Your task to perform on an android device: Open the phone app and click the voicemail tab. Image 0: 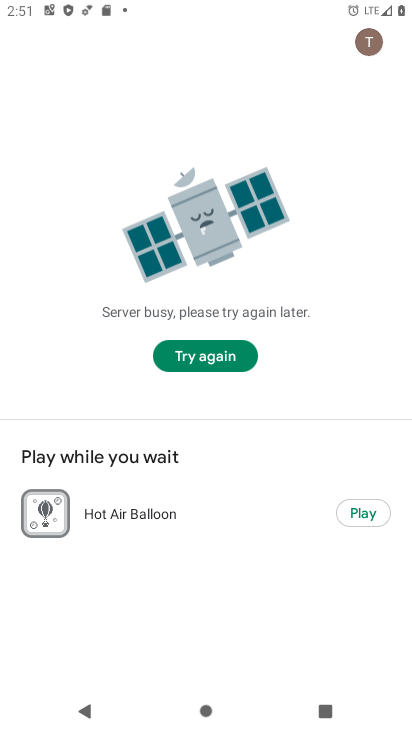
Step 0: press back button
Your task to perform on an android device: Open the phone app and click the voicemail tab. Image 1: 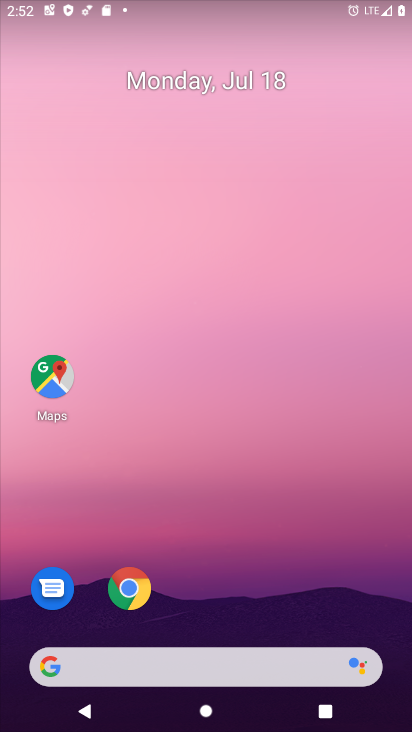
Step 1: drag from (232, 581) to (332, 44)
Your task to perform on an android device: Open the phone app and click the voicemail tab. Image 2: 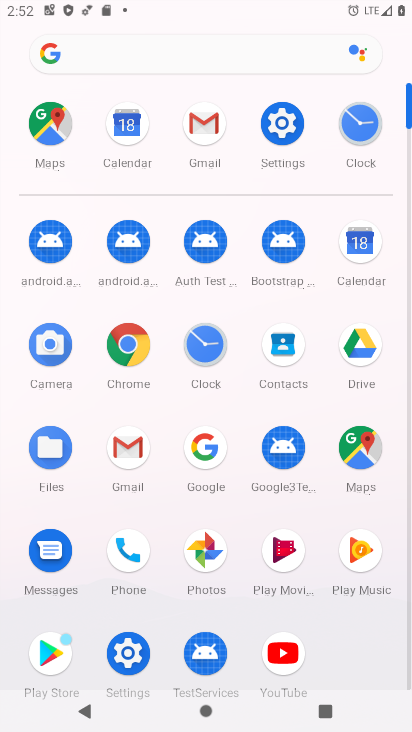
Step 2: click (127, 560)
Your task to perform on an android device: Open the phone app and click the voicemail tab. Image 3: 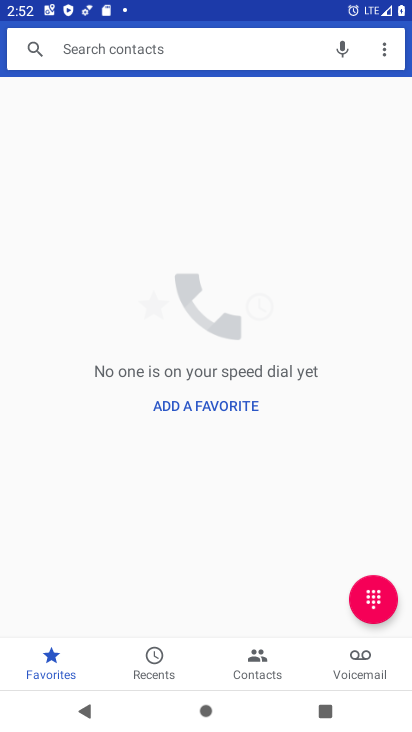
Step 3: click (351, 663)
Your task to perform on an android device: Open the phone app and click the voicemail tab. Image 4: 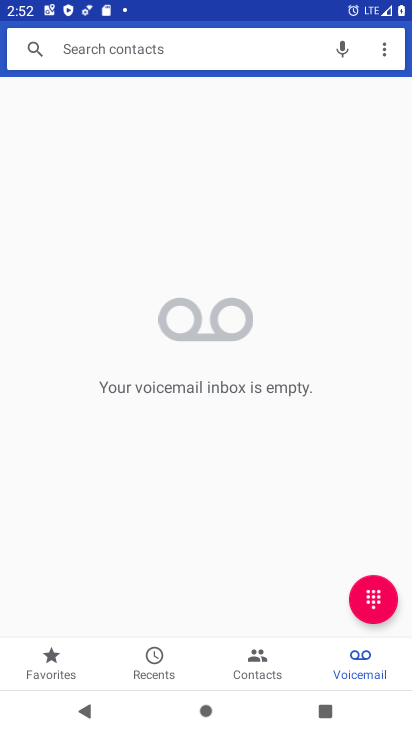
Step 4: task complete